Your task to perform on an android device: When is my next meeting? Image 0: 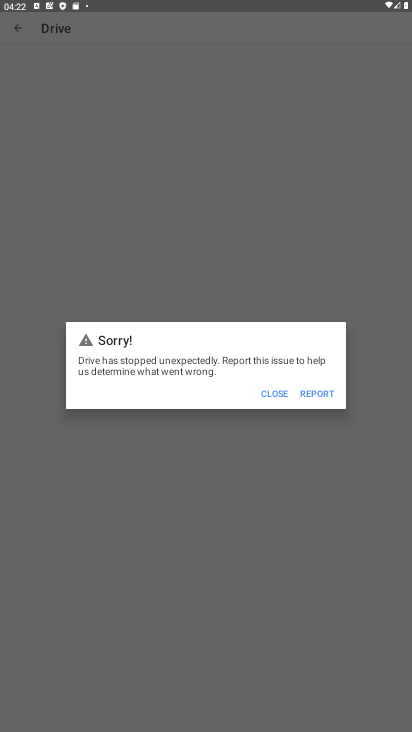
Step 0: press home button
Your task to perform on an android device: When is my next meeting? Image 1: 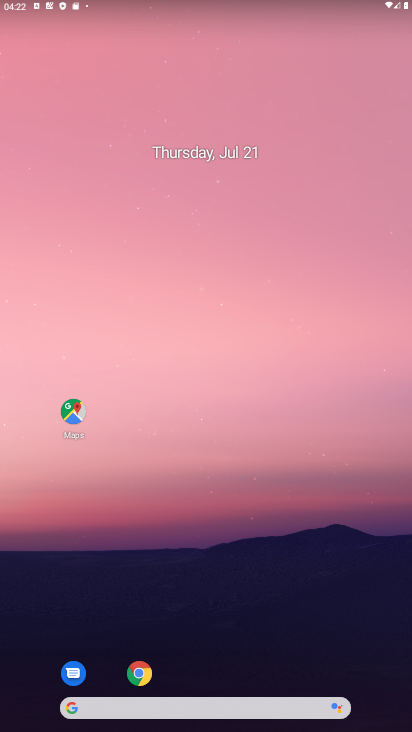
Step 1: drag from (354, 631) to (310, 190)
Your task to perform on an android device: When is my next meeting? Image 2: 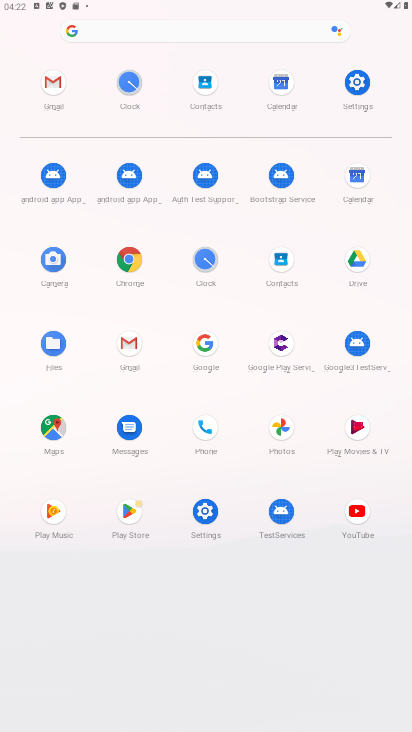
Step 2: click (355, 176)
Your task to perform on an android device: When is my next meeting? Image 3: 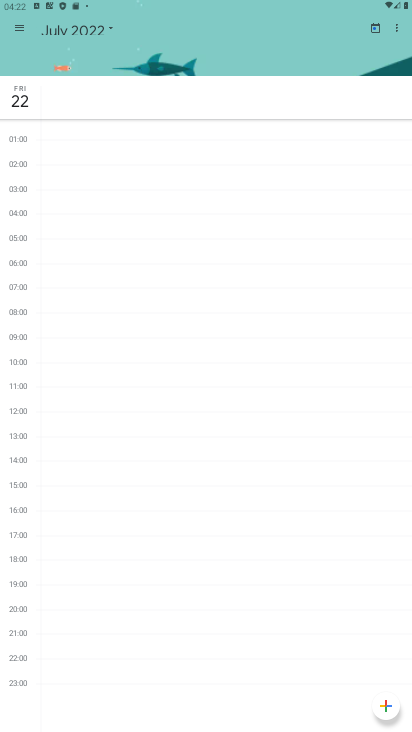
Step 3: click (18, 24)
Your task to perform on an android device: When is my next meeting? Image 4: 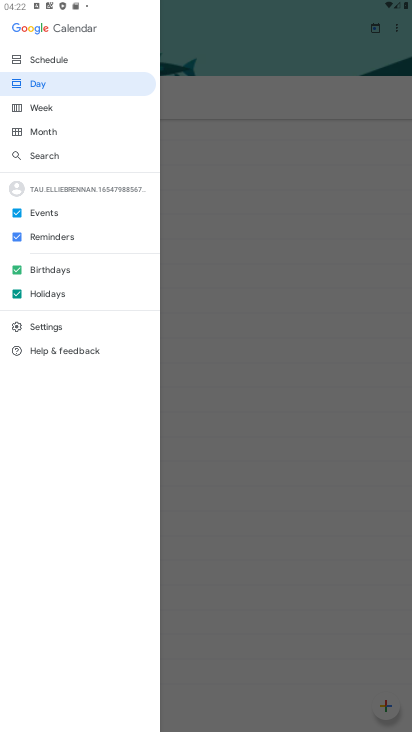
Step 4: click (40, 61)
Your task to perform on an android device: When is my next meeting? Image 5: 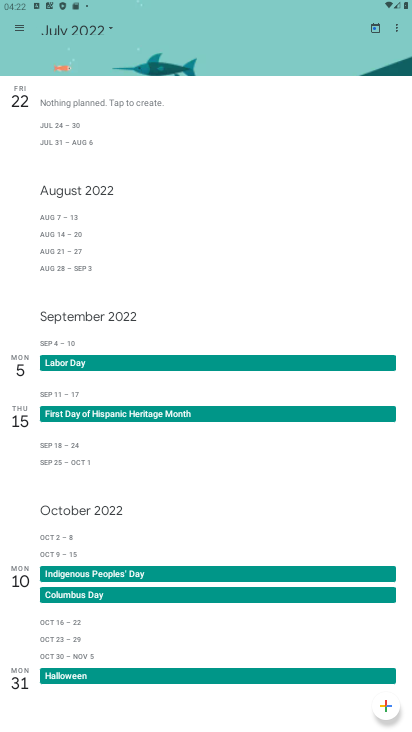
Step 5: task complete